Your task to perform on an android device: toggle sleep mode Image 0: 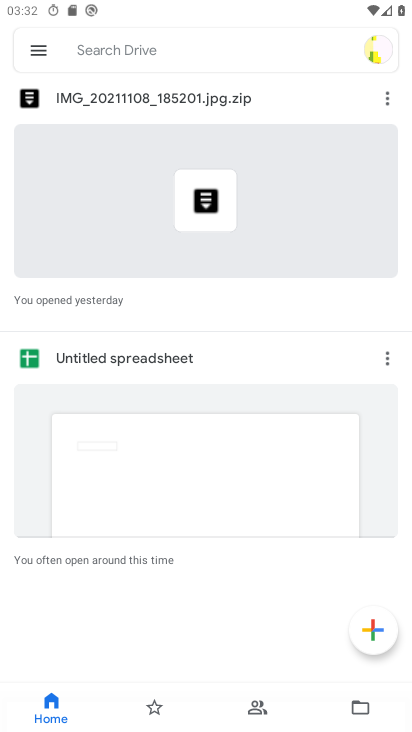
Step 0: press home button
Your task to perform on an android device: toggle sleep mode Image 1: 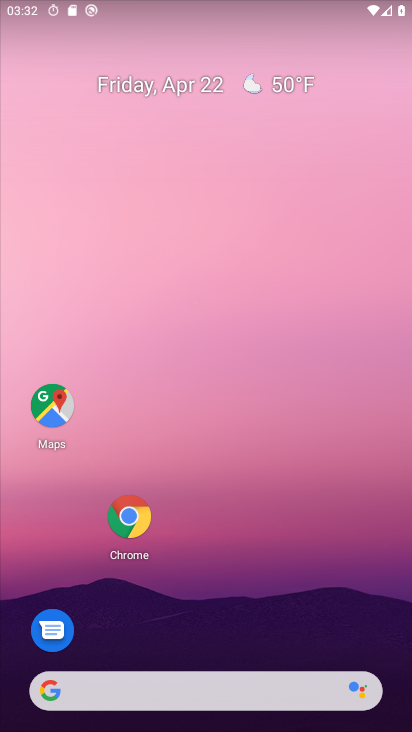
Step 1: drag from (354, 521) to (318, 154)
Your task to perform on an android device: toggle sleep mode Image 2: 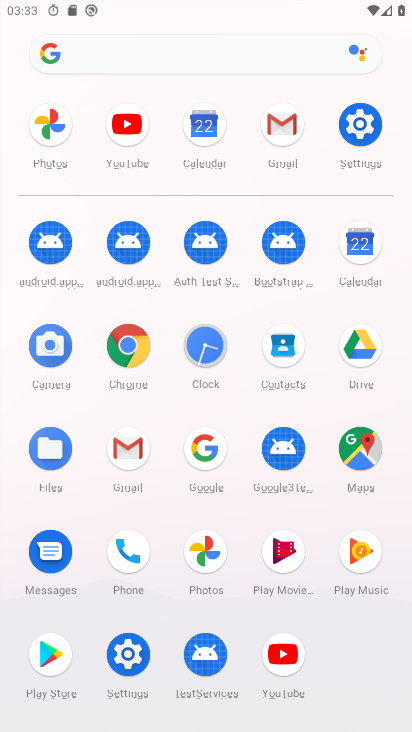
Step 2: click (364, 119)
Your task to perform on an android device: toggle sleep mode Image 3: 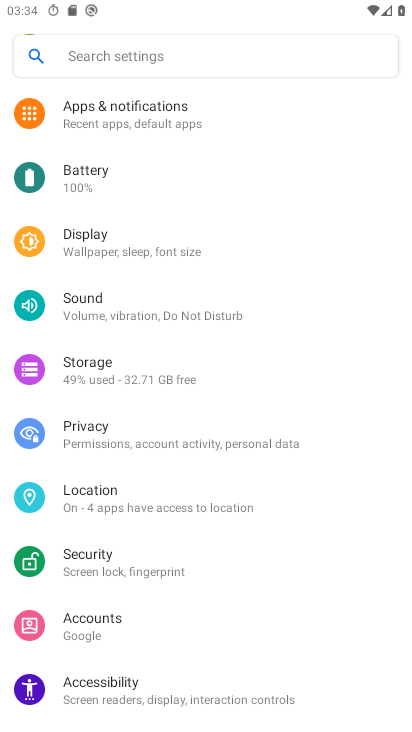
Step 3: click (89, 247)
Your task to perform on an android device: toggle sleep mode Image 4: 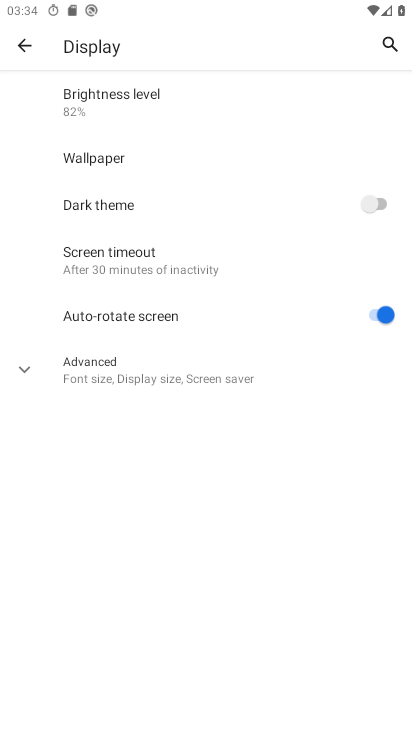
Step 4: click (118, 263)
Your task to perform on an android device: toggle sleep mode Image 5: 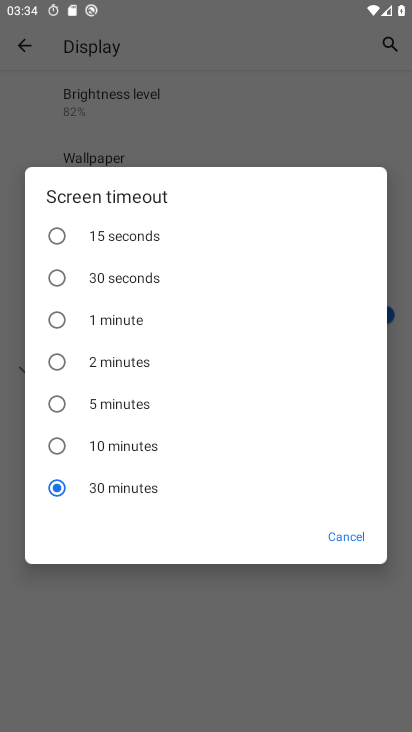
Step 5: click (57, 359)
Your task to perform on an android device: toggle sleep mode Image 6: 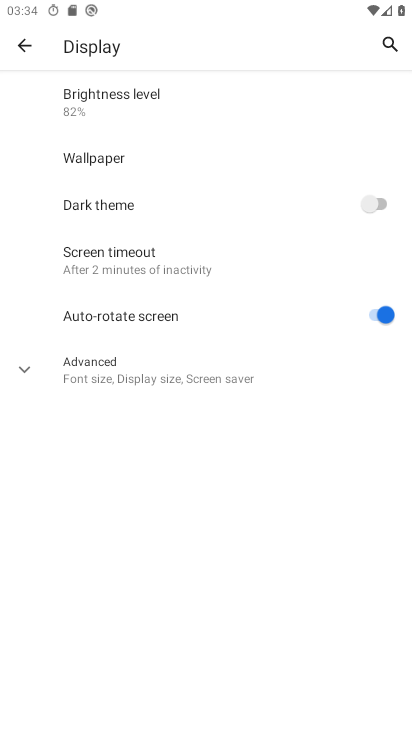
Step 6: task complete